Your task to perform on an android device: open a bookmark in the chrome app Image 0: 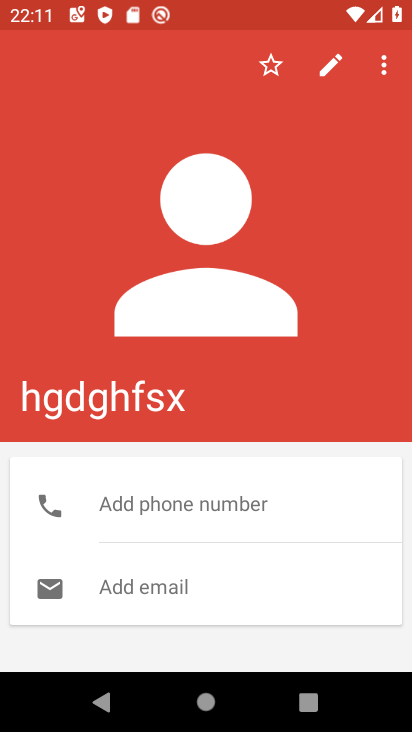
Step 0: press home button
Your task to perform on an android device: open a bookmark in the chrome app Image 1: 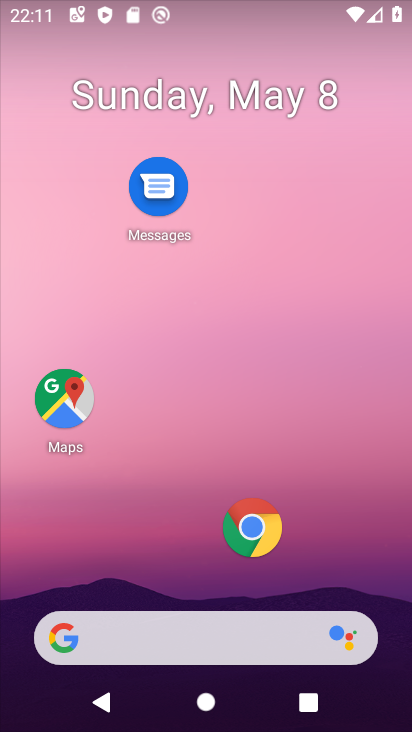
Step 1: click (254, 524)
Your task to perform on an android device: open a bookmark in the chrome app Image 2: 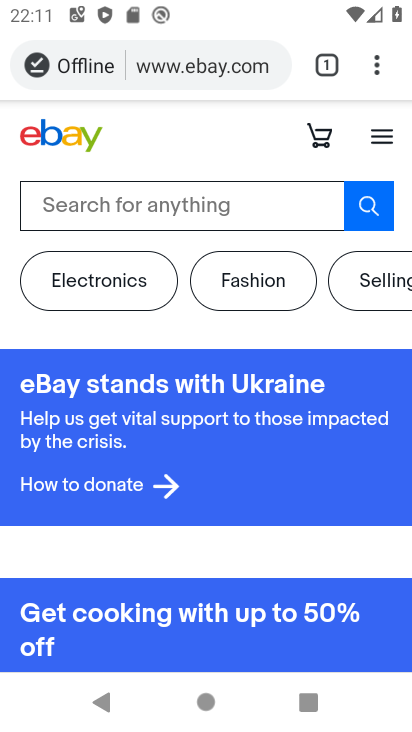
Step 2: click (365, 65)
Your task to perform on an android device: open a bookmark in the chrome app Image 3: 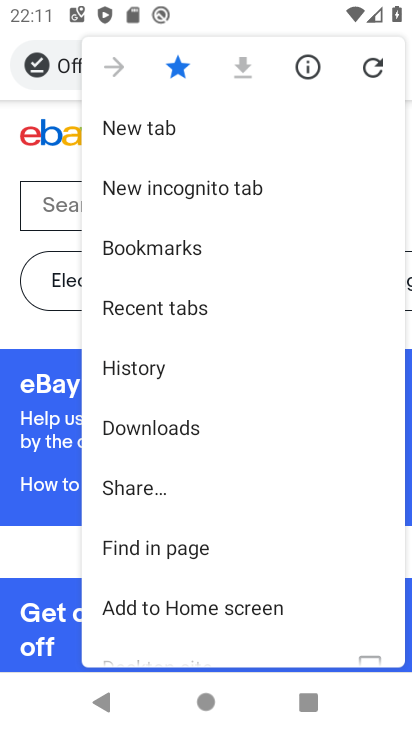
Step 3: click (153, 252)
Your task to perform on an android device: open a bookmark in the chrome app Image 4: 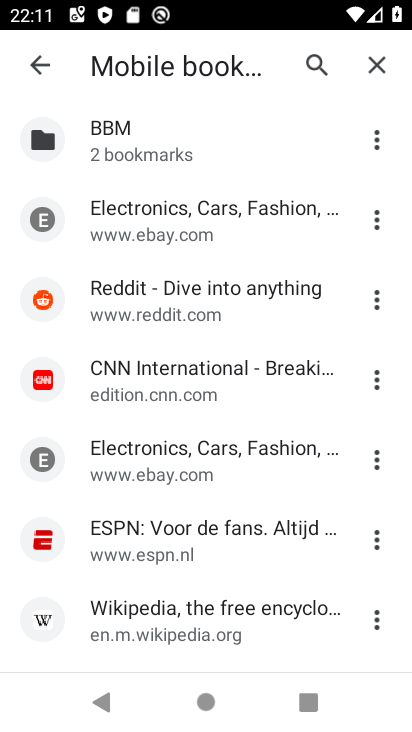
Step 4: click (147, 294)
Your task to perform on an android device: open a bookmark in the chrome app Image 5: 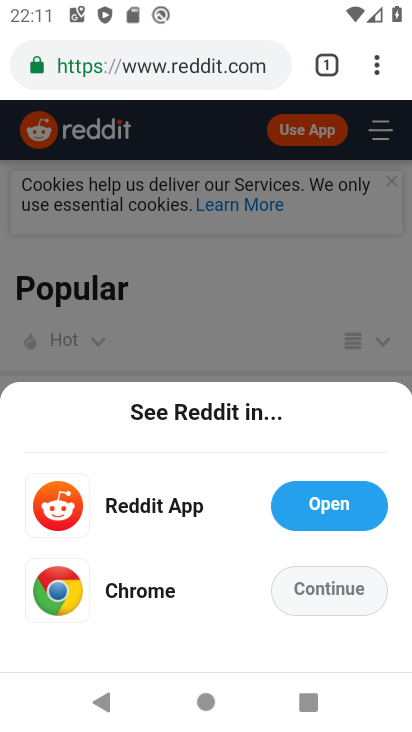
Step 5: task complete